Your task to perform on an android device: clear all cookies in the chrome app Image 0: 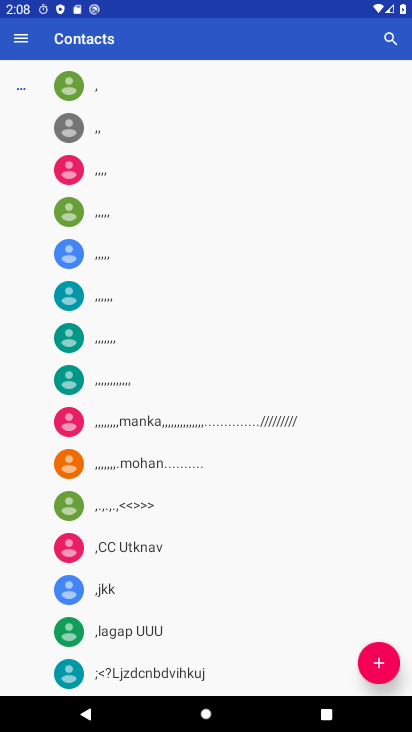
Step 0: press home button
Your task to perform on an android device: clear all cookies in the chrome app Image 1: 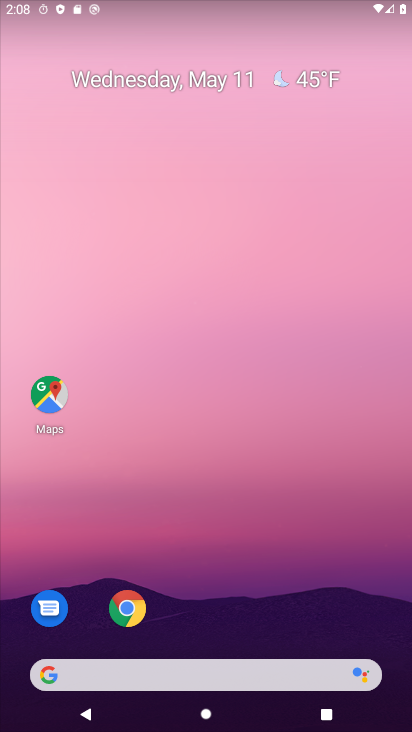
Step 1: click (125, 608)
Your task to perform on an android device: clear all cookies in the chrome app Image 2: 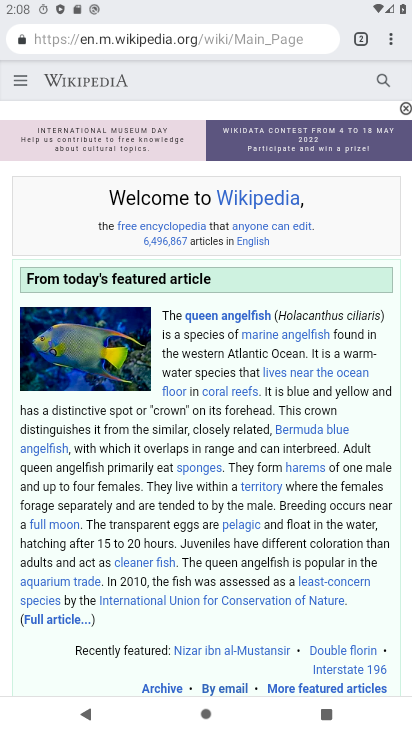
Step 2: click (385, 41)
Your task to perform on an android device: clear all cookies in the chrome app Image 3: 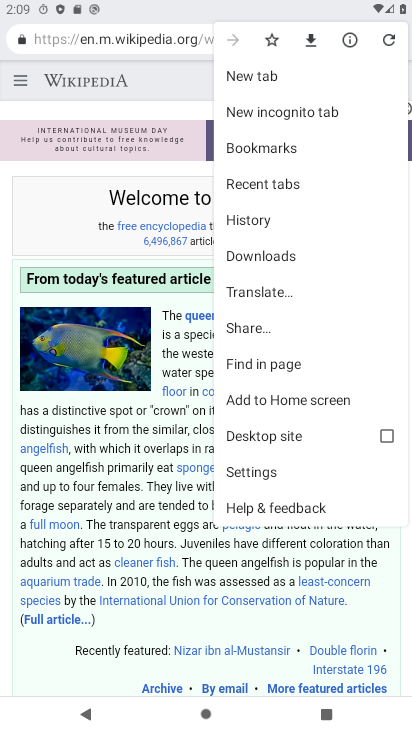
Step 3: drag from (345, 368) to (302, 191)
Your task to perform on an android device: clear all cookies in the chrome app Image 4: 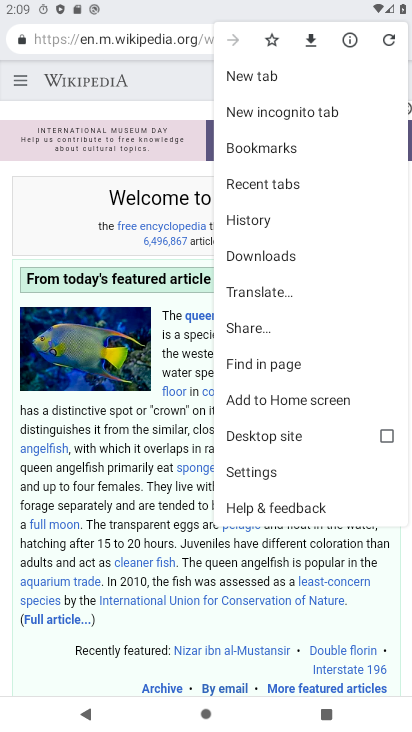
Step 4: click (263, 470)
Your task to perform on an android device: clear all cookies in the chrome app Image 5: 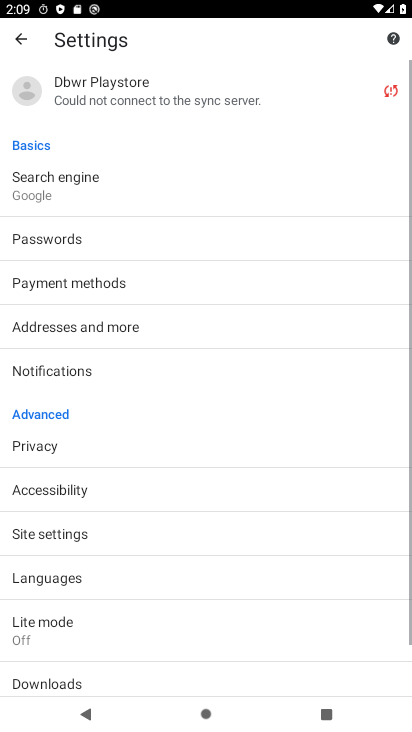
Step 5: drag from (263, 470) to (252, 274)
Your task to perform on an android device: clear all cookies in the chrome app Image 6: 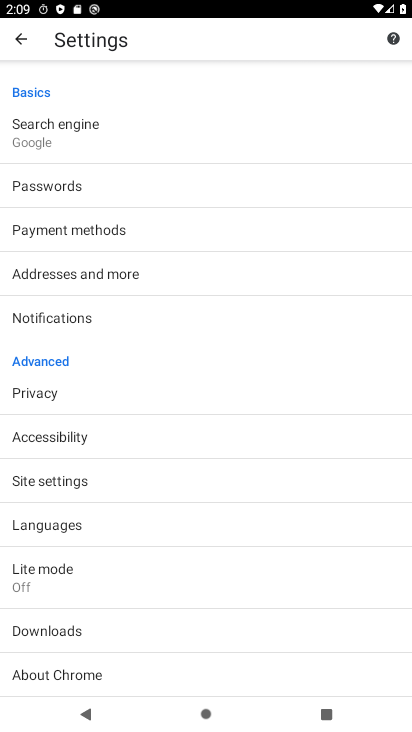
Step 6: click (77, 468)
Your task to perform on an android device: clear all cookies in the chrome app Image 7: 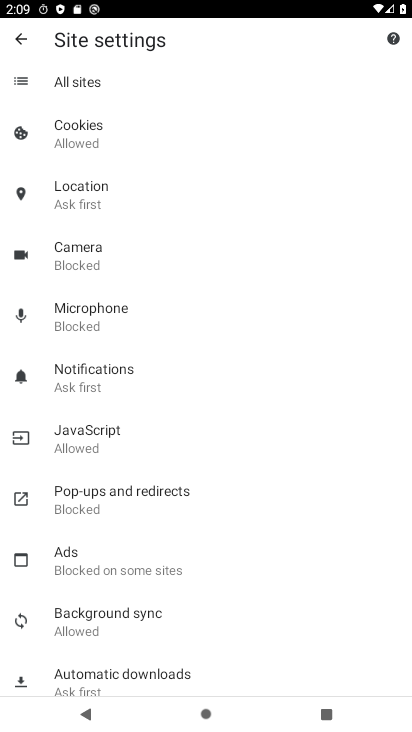
Step 7: drag from (113, 617) to (134, 298)
Your task to perform on an android device: clear all cookies in the chrome app Image 8: 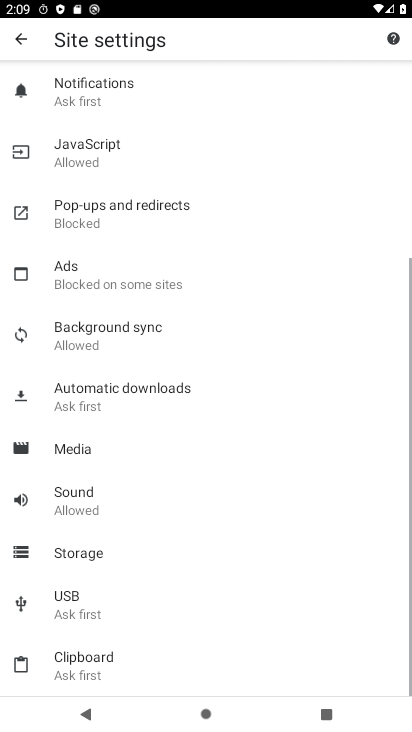
Step 8: press back button
Your task to perform on an android device: clear all cookies in the chrome app Image 9: 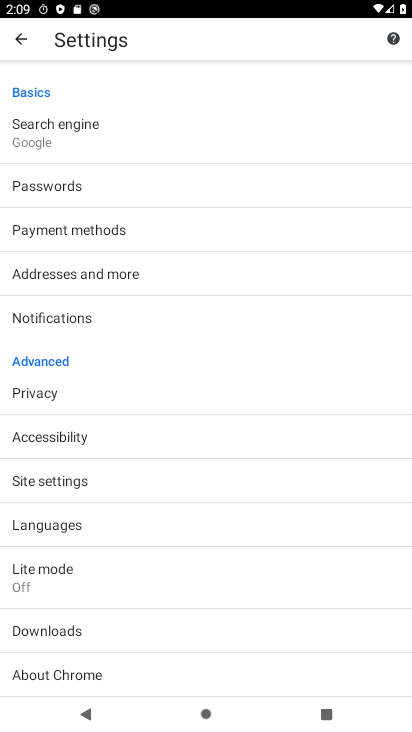
Step 9: click (41, 397)
Your task to perform on an android device: clear all cookies in the chrome app Image 10: 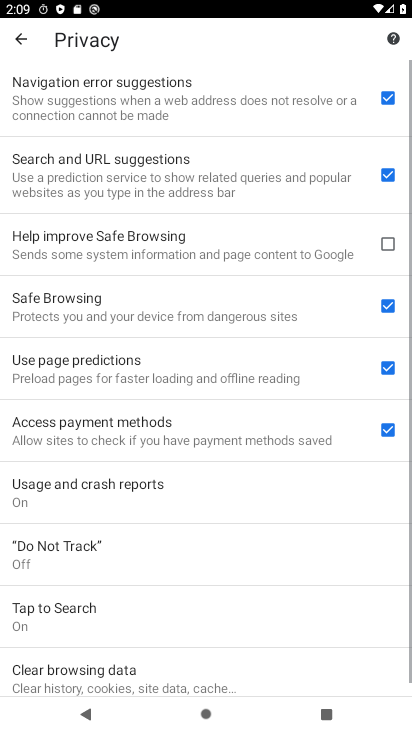
Step 10: drag from (237, 516) to (243, 171)
Your task to perform on an android device: clear all cookies in the chrome app Image 11: 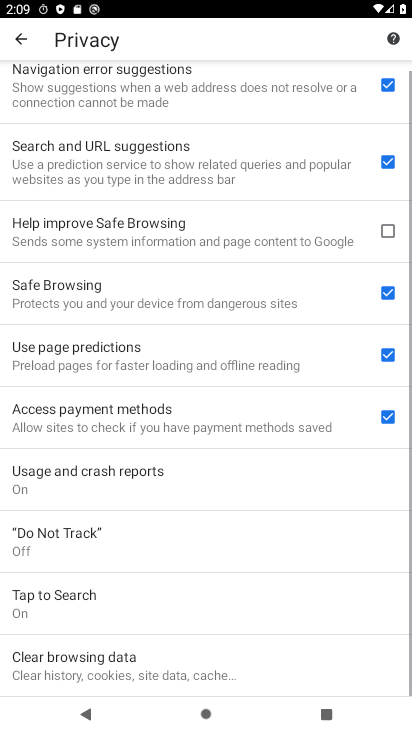
Step 11: click (135, 677)
Your task to perform on an android device: clear all cookies in the chrome app Image 12: 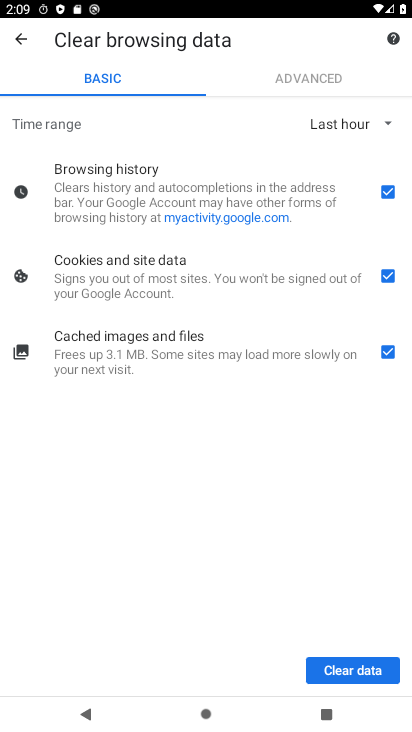
Step 12: click (383, 191)
Your task to perform on an android device: clear all cookies in the chrome app Image 13: 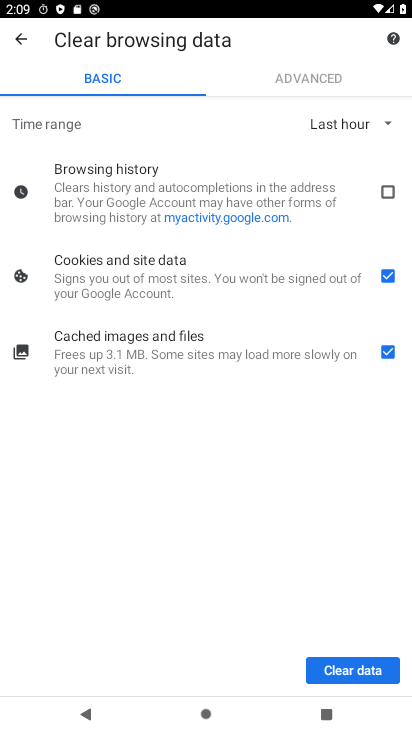
Step 13: click (388, 355)
Your task to perform on an android device: clear all cookies in the chrome app Image 14: 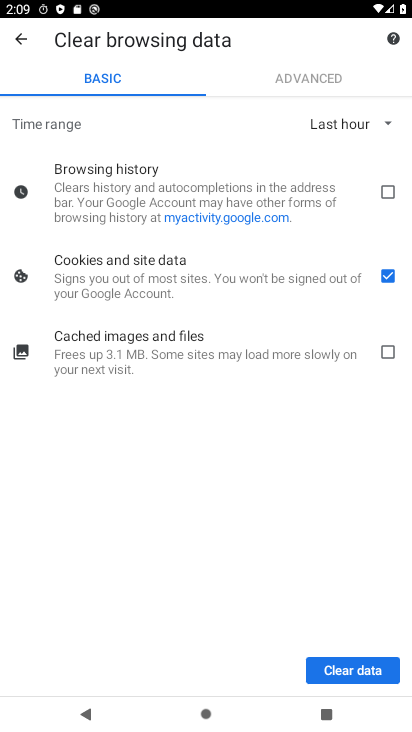
Step 14: click (349, 676)
Your task to perform on an android device: clear all cookies in the chrome app Image 15: 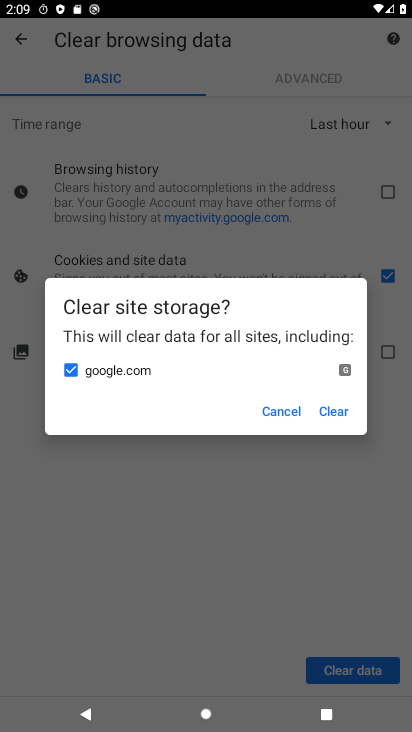
Step 15: click (327, 411)
Your task to perform on an android device: clear all cookies in the chrome app Image 16: 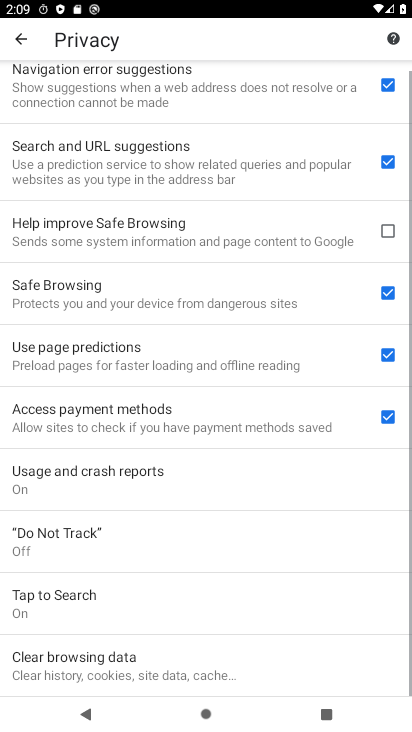
Step 16: task complete